Your task to perform on an android device: read, delete, or share a saved page in the chrome app Image 0: 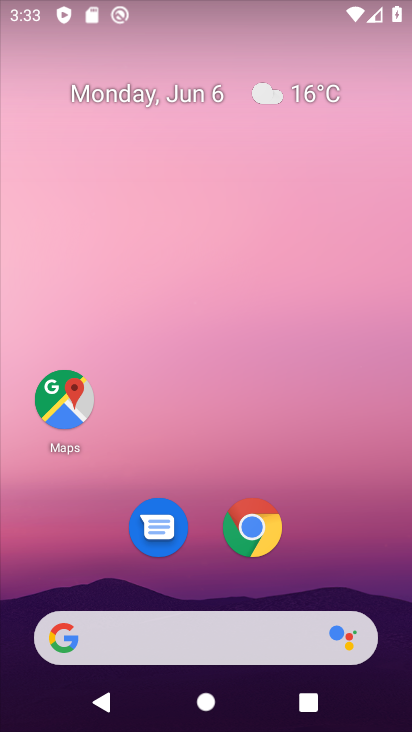
Step 0: click (258, 521)
Your task to perform on an android device: read, delete, or share a saved page in the chrome app Image 1: 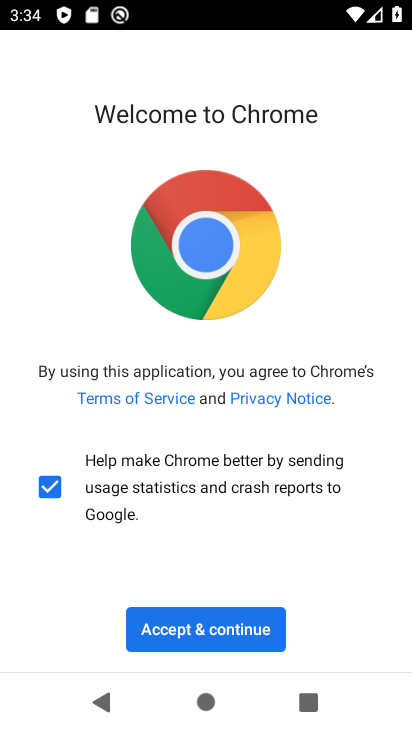
Step 1: click (203, 633)
Your task to perform on an android device: read, delete, or share a saved page in the chrome app Image 2: 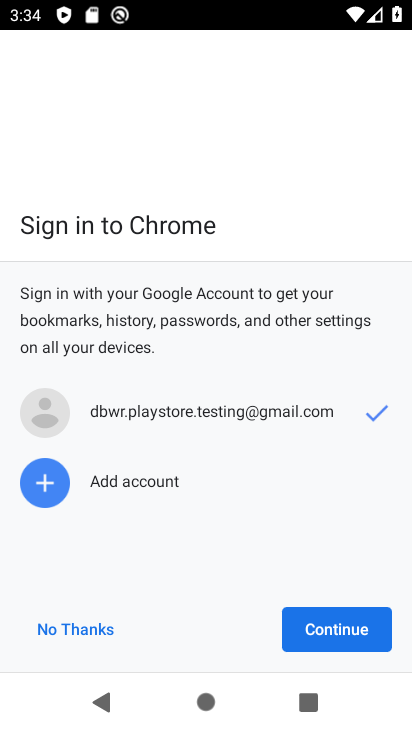
Step 2: click (348, 629)
Your task to perform on an android device: read, delete, or share a saved page in the chrome app Image 3: 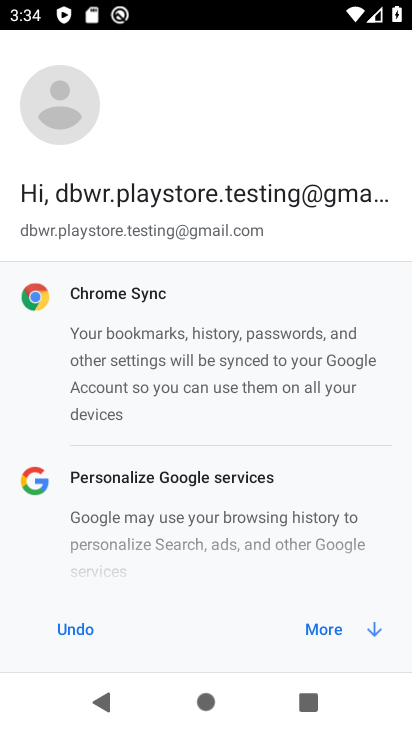
Step 3: click (348, 629)
Your task to perform on an android device: read, delete, or share a saved page in the chrome app Image 4: 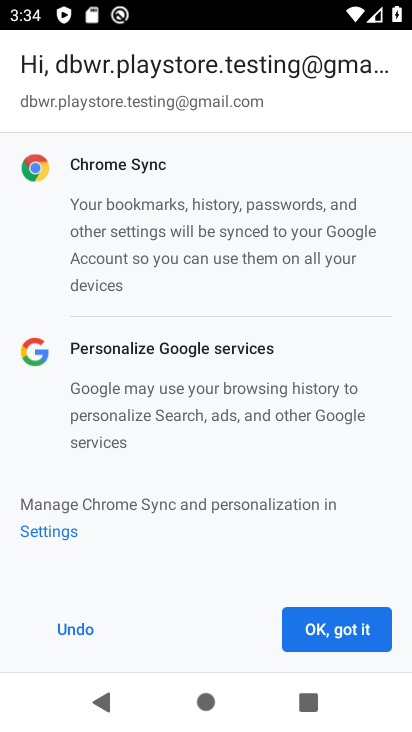
Step 4: click (348, 629)
Your task to perform on an android device: read, delete, or share a saved page in the chrome app Image 5: 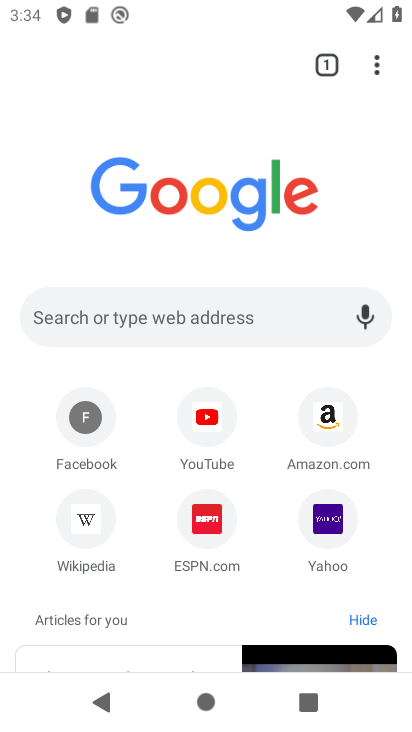
Step 5: click (388, 57)
Your task to perform on an android device: read, delete, or share a saved page in the chrome app Image 6: 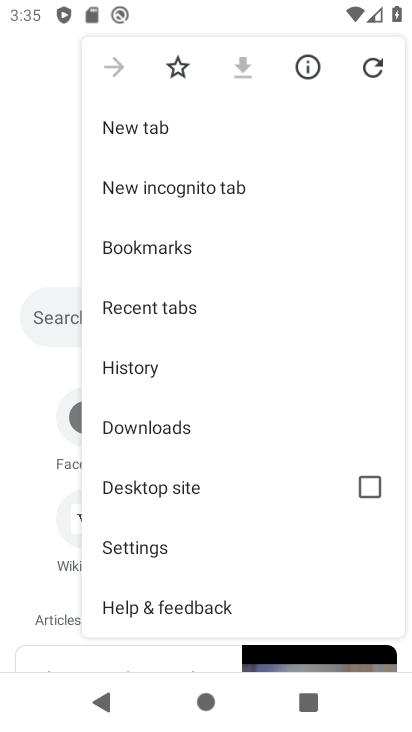
Step 6: click (157, 555)
Your task to perform on an android device: read, delete, or share a saved page in the chrome app Image 7: 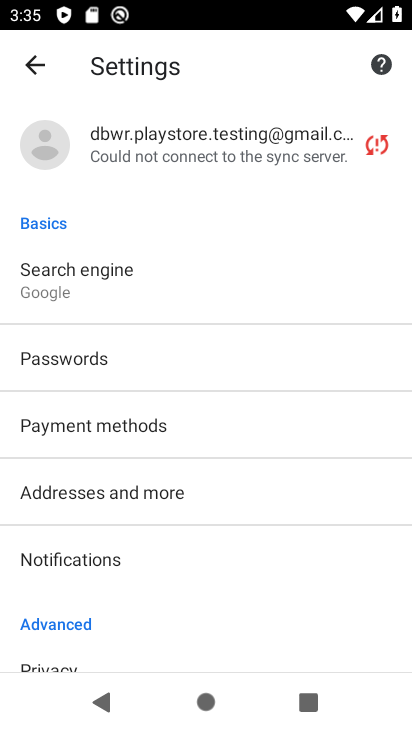
Step 7: click (29, 56)
Your task to perform on an android device: read, delete, or share a saved page in the chrome app Image 8: 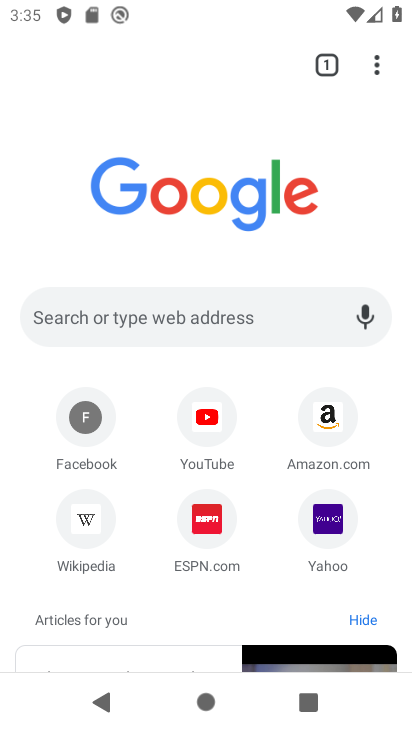
Step 8: click (381, 66)
Your task to perform on an android device: read, delete, or share a saved page in the chrome app Image 9: 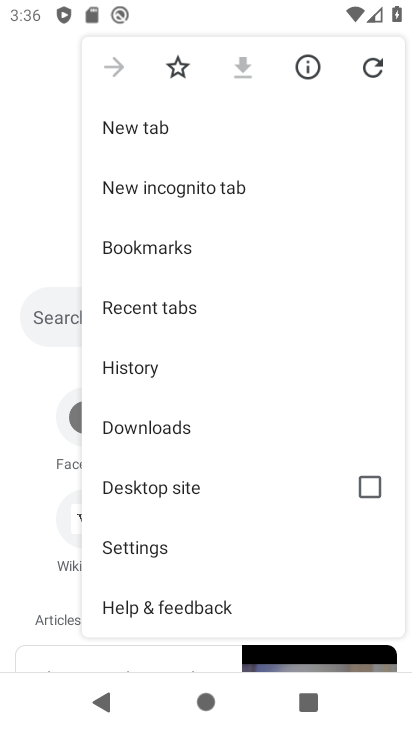
Step 9: click (159, 426)
Your task to perform on an android device: read, delete, or share a saved page in the chrome app Image 10: 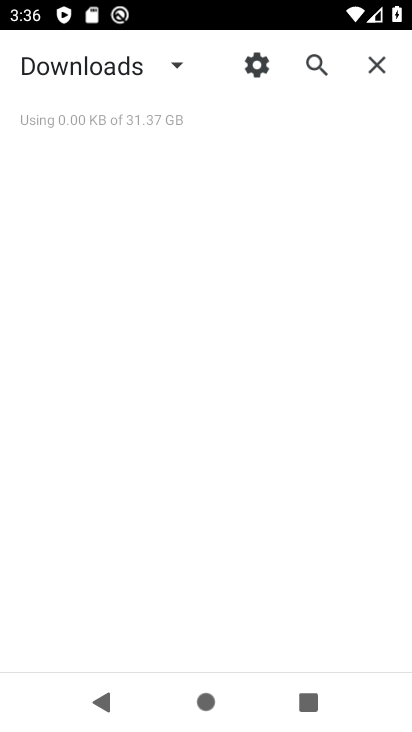
Step 10: click (174, 65)
Your task to perform on an android device: read, delete, or share a saved page in the chrome app Image 11: 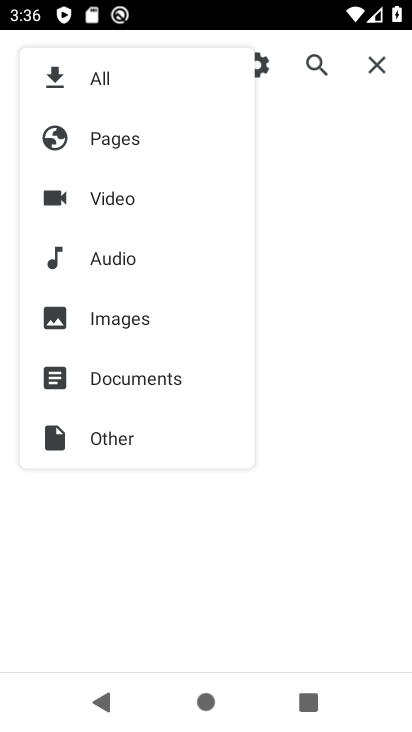
Step 11: click (110, 137)
Your task to perform on an android device: read, delete, or share a saved page in the chrome app Image 12: 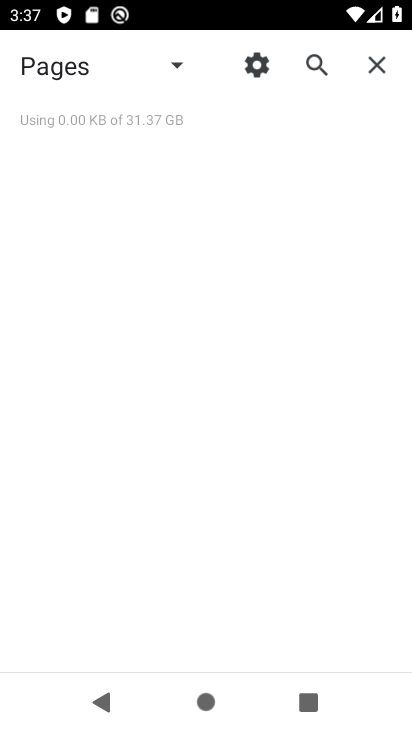
Step 12: task complete